Your task to perform on an android device: open a new tab in the chrome app Image 0: 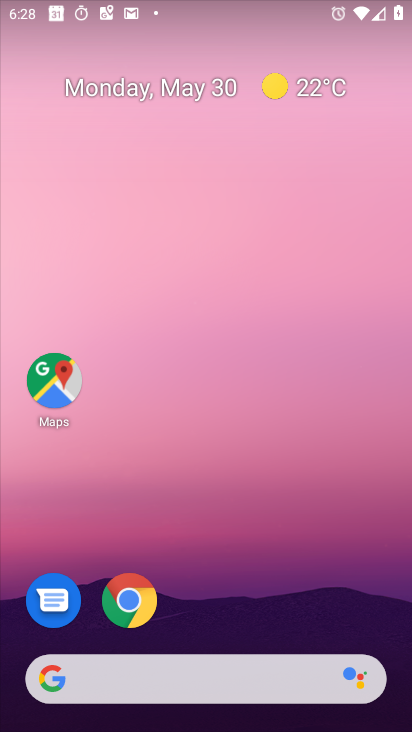
Step 0: press home button
Your task to perform on an android device: open a new tab in the chrome app Image 1: 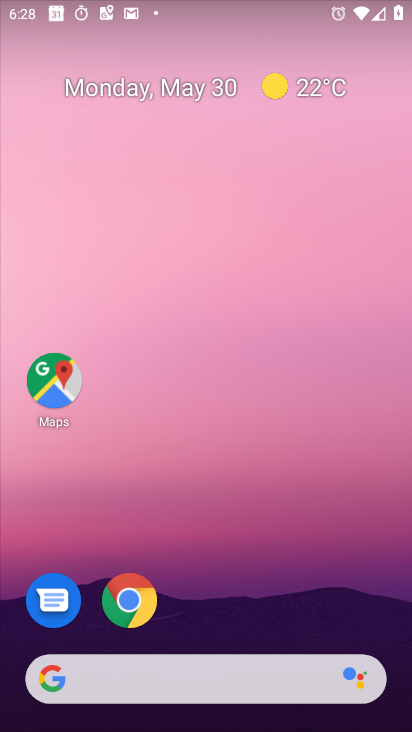
Step 1: click (146, 621)
Your task to perform on an android device: open a new tab in the chrome app Image 2: 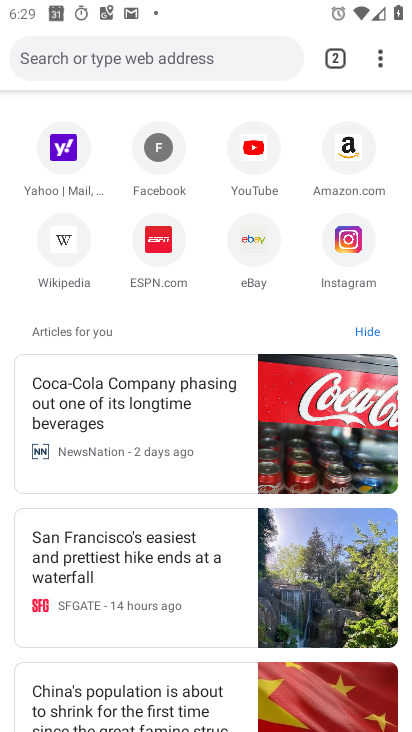
Step 2: click (329, 66)
Your task to perform on an android device: open a new tab in the chrome app Image 3: 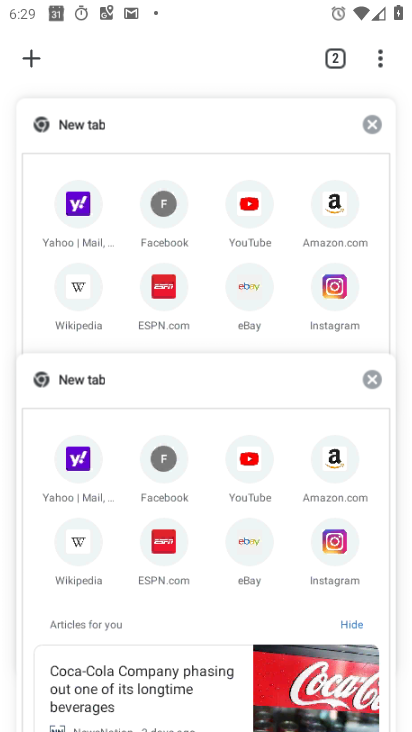
Step 3: click (37, 65)
Your task to perform on an android device: open a new tab in the chrome app Image 4: 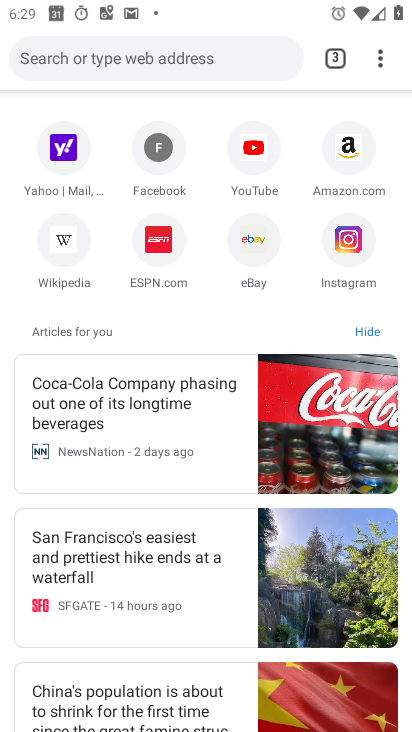
Step 4: task complete